Your task to perform on an android device: Open ESPN.com Image 0: 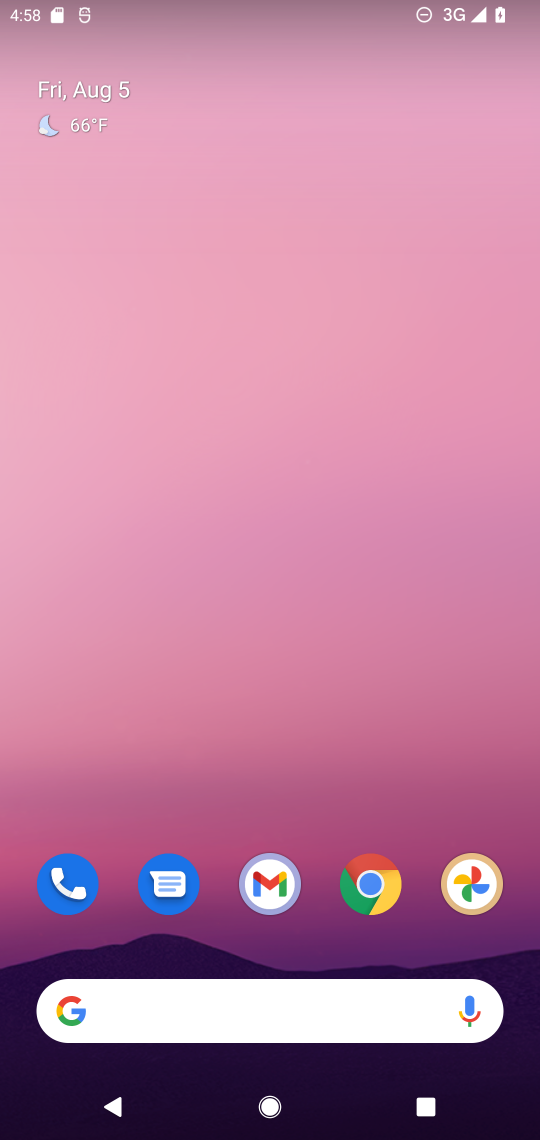
Step 0: drag from (431, 944) to (128, 49)
Your task to perform on an android device: Open ESPN.com Image 1: 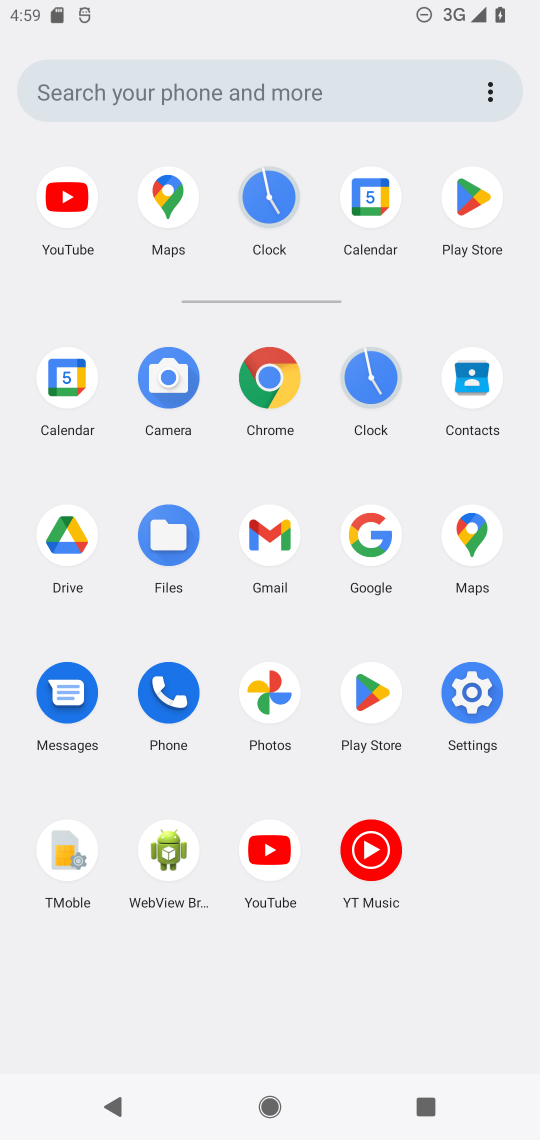
Step 1: click (369, 547)
Your task to perform on an android device: Open ESPN.com Image 2: 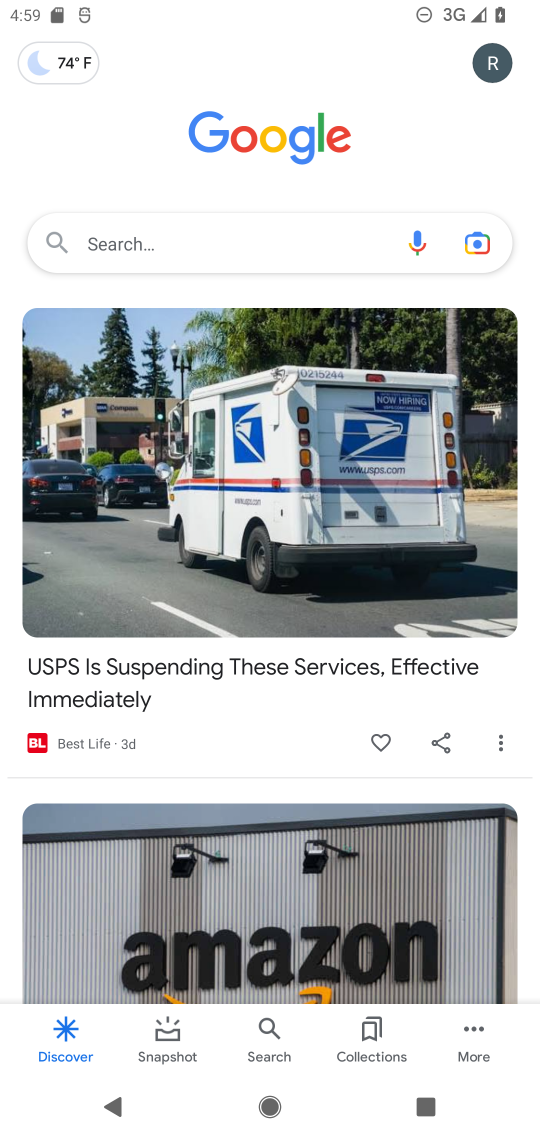
Step 2: click (164, 241)
Your task to perform on an android device: Open ESPN.com Image 3: 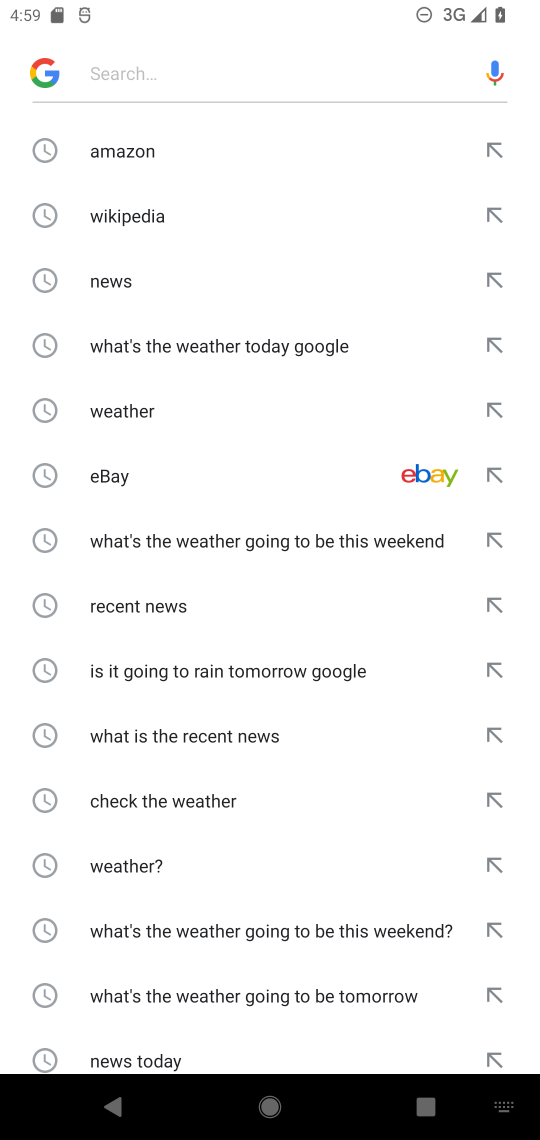
Step 3: type "ESPN.com"
Your task to perform on an android device: Open ESPN.com Image 4: 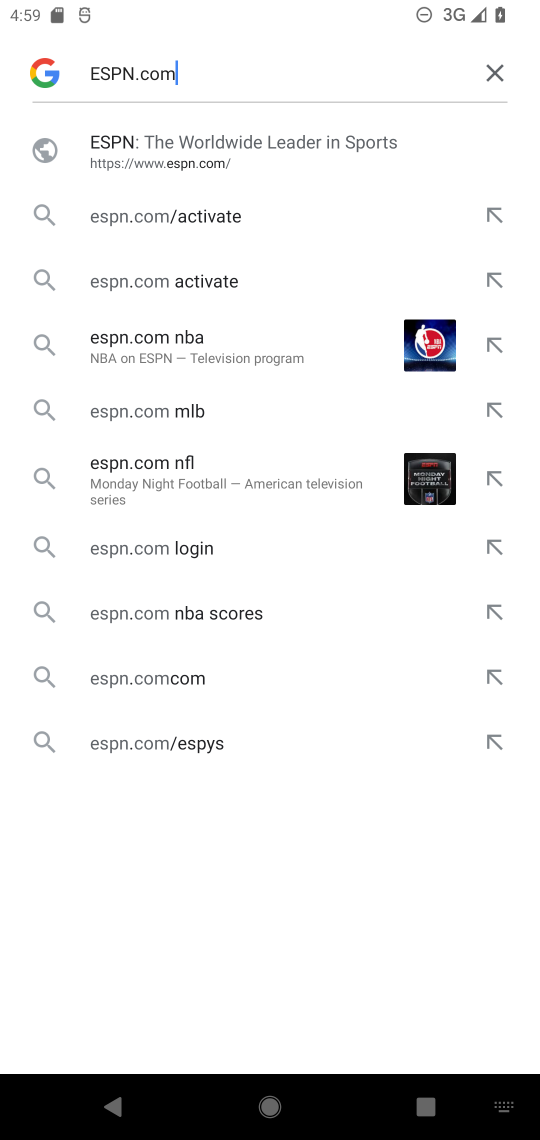
Step 4: click (187, 146)
Your task to perform on an android device: Open ESPN.com Image 5: 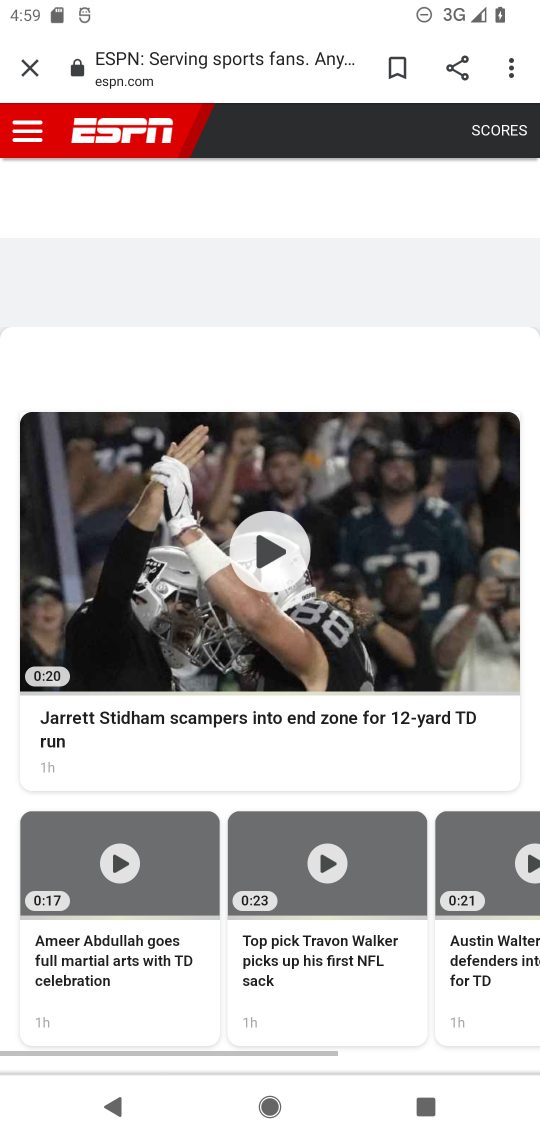
Step 5: task complete